Your task to perform on an android device: Open Maps and search for coffee Image 0: 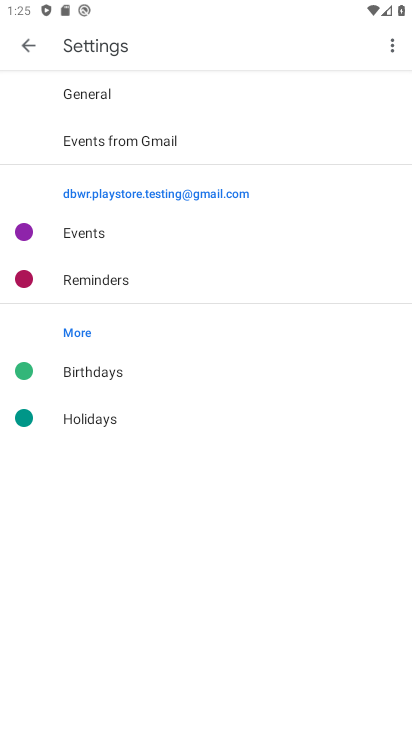
Step 0: press back button
Your task to perform on an android device: Open Maps and search for coffee Image 1: 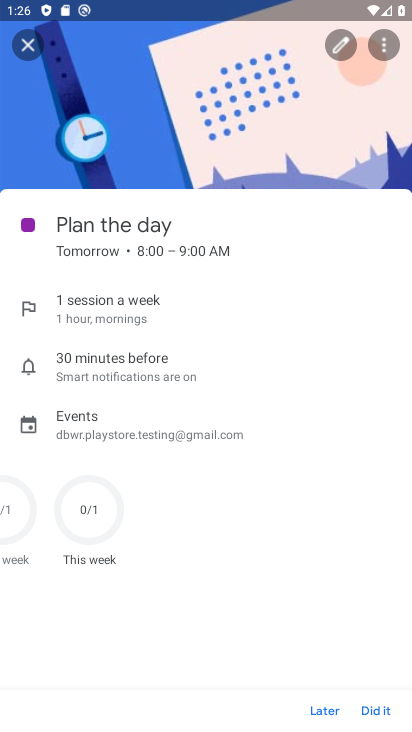
Step 1: press back button
Your task to perform on an android device: Open Maps and search for coffee Image 2: 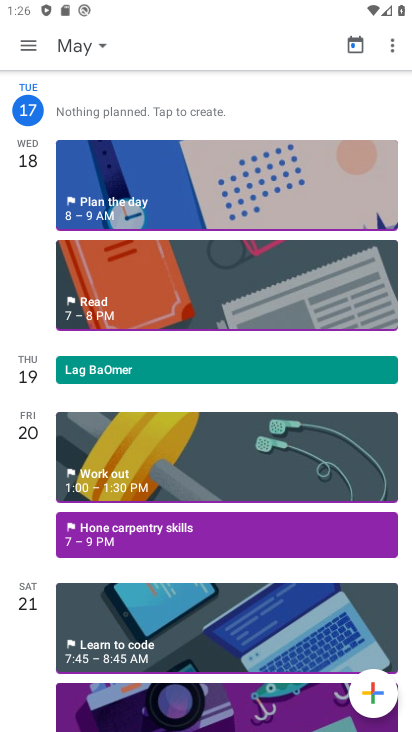
Step 2: press back button
Your task to perform on an android device: Open Maps and search for coffee Image 3: 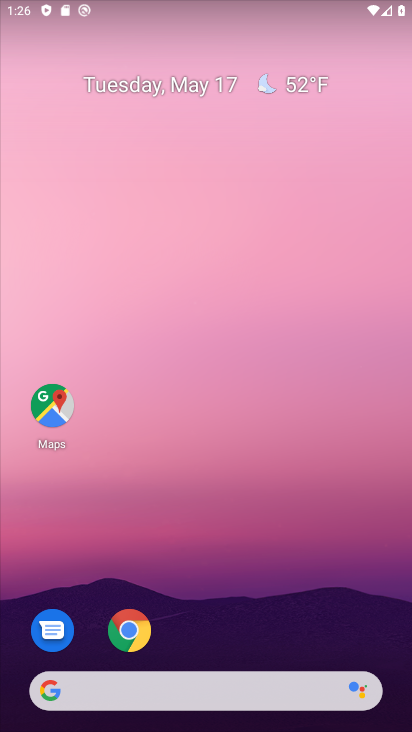
Step 3: click (52, 403)
Your task to perform on an android device: Open Maps and search for coffee Image 4: 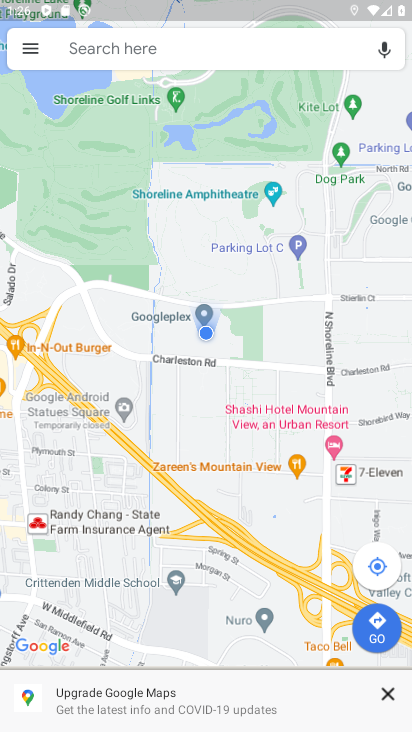
Step 4: click (112, 47)
Your task to perform on an android device: Open Maps and search for coffee Image 5: 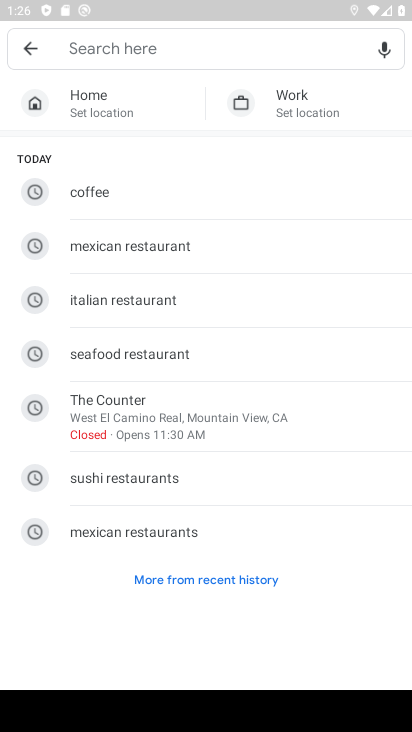
Step 5: click (105, 199)
Your task to perform on an android device: Open Maps and search for coffee Image 6: 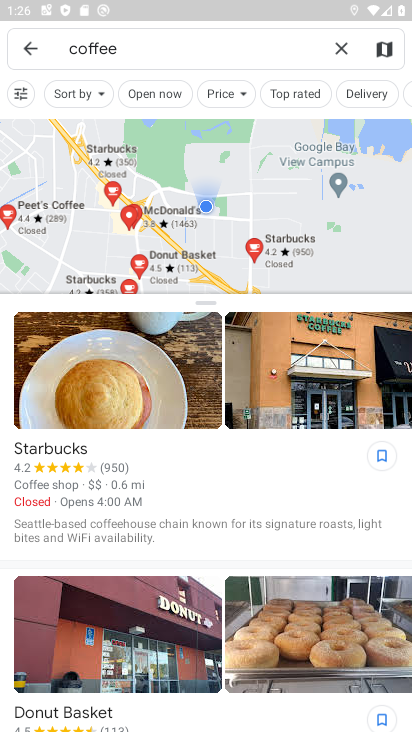
Step 6: task complete